Your task to perform on an android device: When is my next meeting? Image 0: 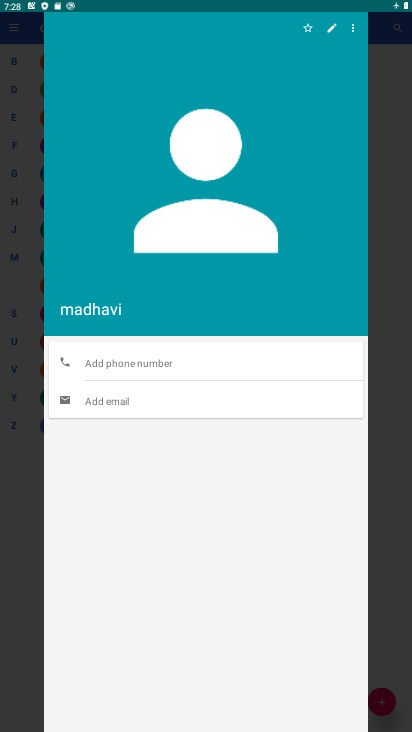
Step 0: press home button
Your task to perform on an android device: When is my next meeting? Image 1: 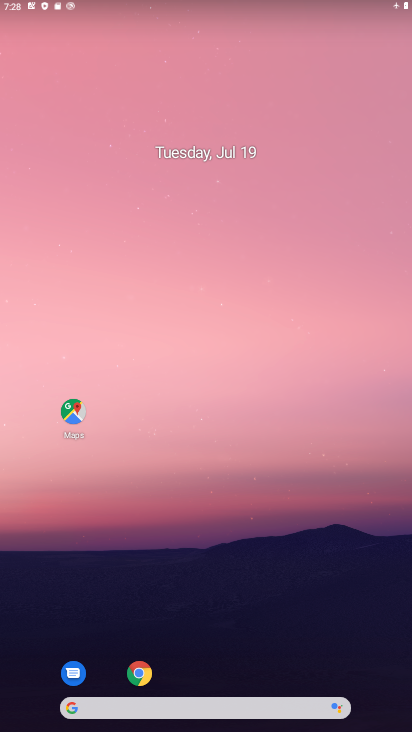
Step 1: drag from (391, 696) to (277, 0)
Your task to perform on an android device: When is my next meeting? Image 2: 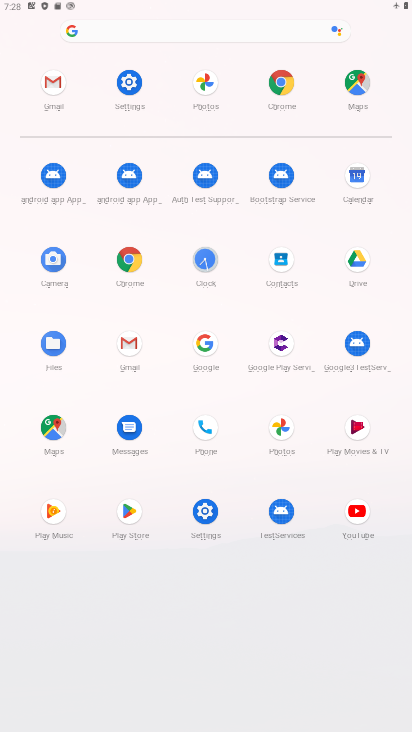
Step 2: click (359, 173)
Your task to perform on an android device: When is my next meeting? Image 3: 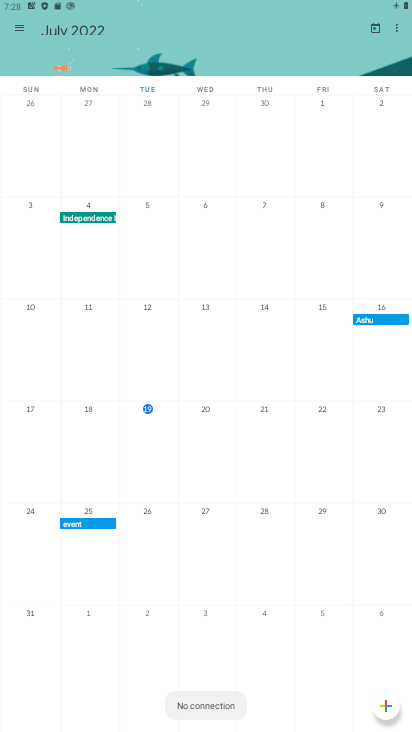
Step 3: task complete